Your task to perform on an android device: Open Maps and search for coffee Image 0: 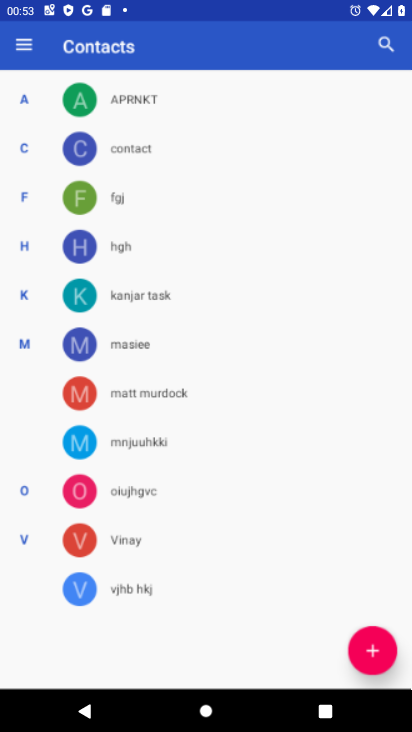
Step 0: press home button
Your task to perform on an android device: Open Maps and search for coffee Image 1: 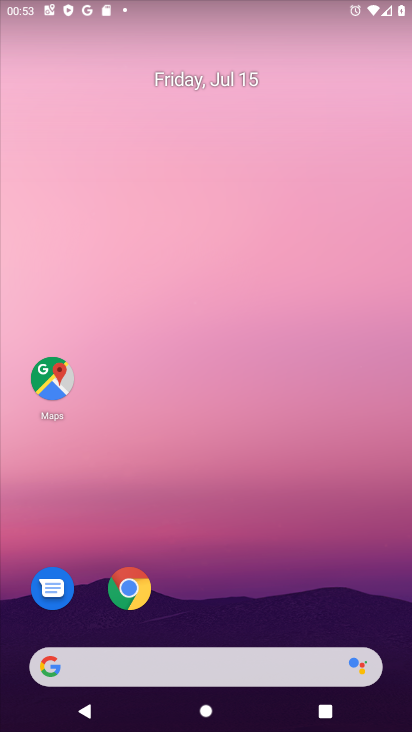
Step 1: click (60, 381)
Your task to perform on an android device: Open Maps and search for coffee Image 2: 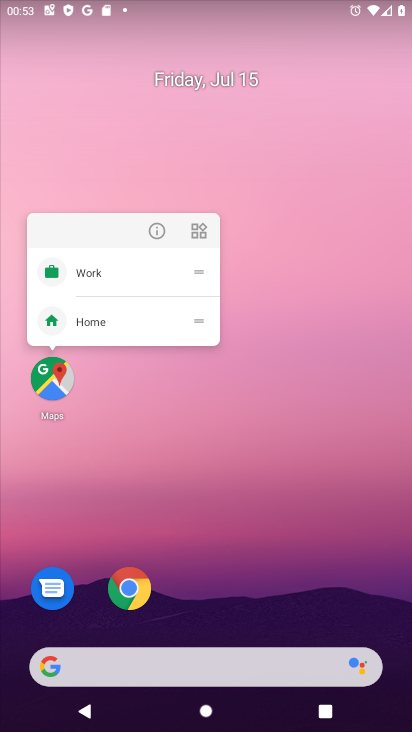
Step 2: click (56, 375)
Your task to perform on an android device: Open Maps and search for coffee Image 3: 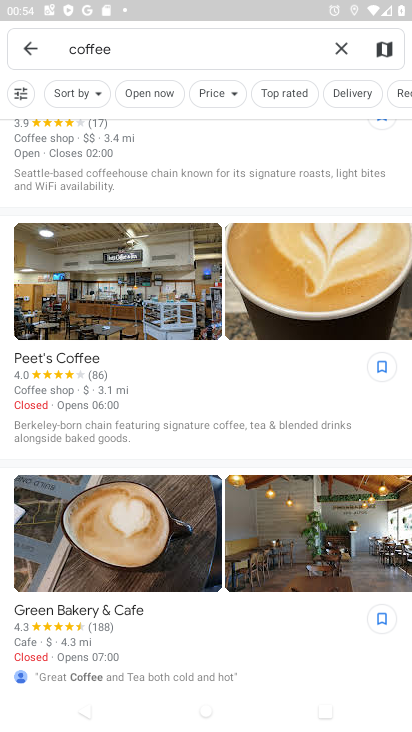
Step 3: task complete